Your task to perform on an android device: Search for sushi restaurants on Maps Image 0: 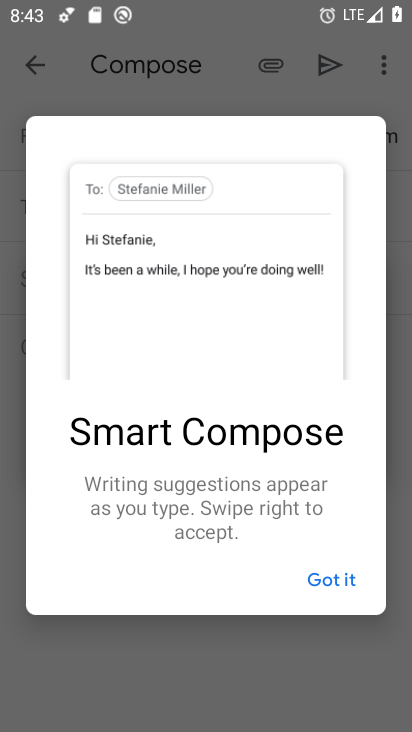
Step 0: press home button
Your task to perform on an android device: Search for sushi restaurants on Maps Image 1: 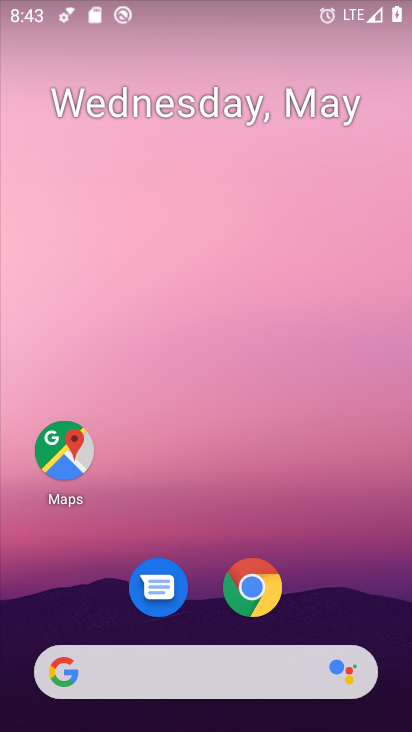
Step 1: click (74, 451)
Your task to perform on an android device: Search for sushi restaurants on Maps Image 2: 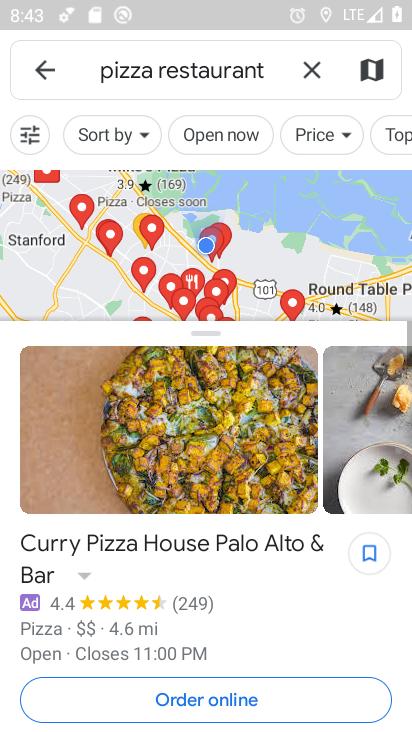
Step 2: click (119, 80)
Your task to perform on an android device: Search for sushi restaurants on Maps Image 3: 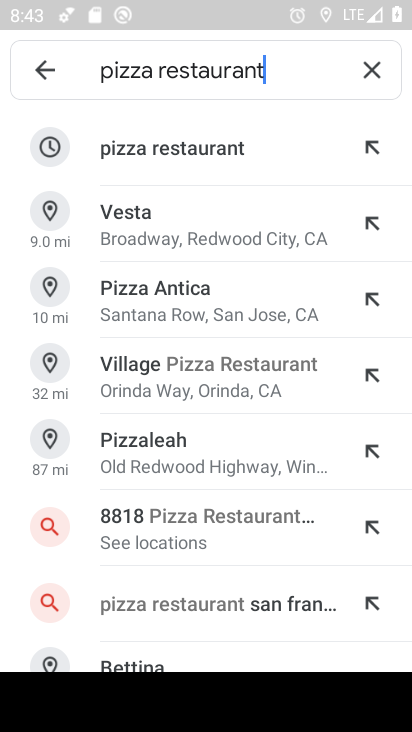
Step 3: click (133, 67)
Your task to perform on an android device: Search for sushi restaurants on Maps Image 4: 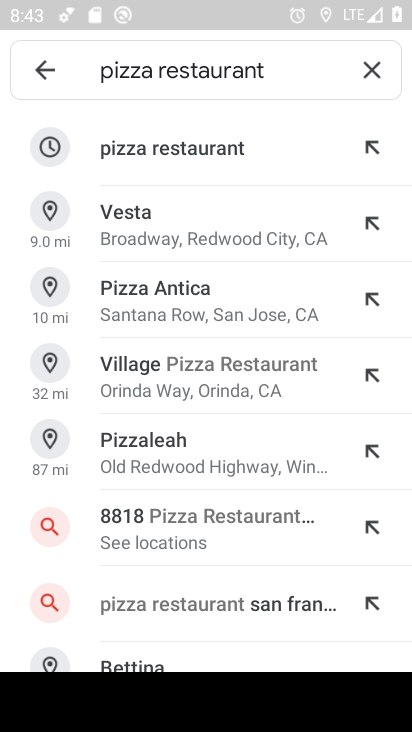
Step 4: click (133, 67)
Your task to perform on an android device: Search for sushi restaurants on Maps Image 5: 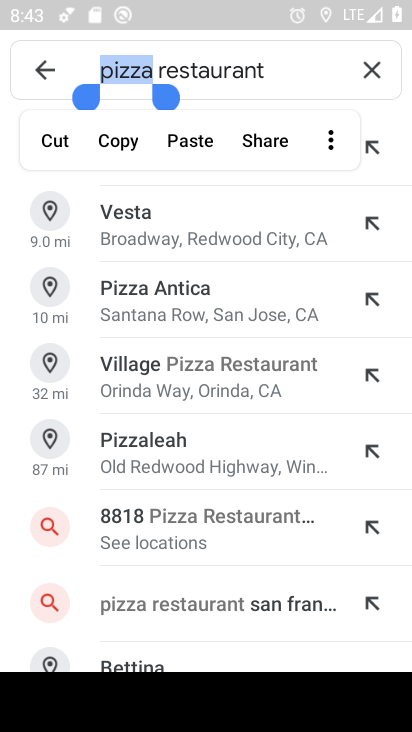
Step 5: type "Sushi"
Your task to perform on an android device: Search for sushi restaurants on Maps Image 6: 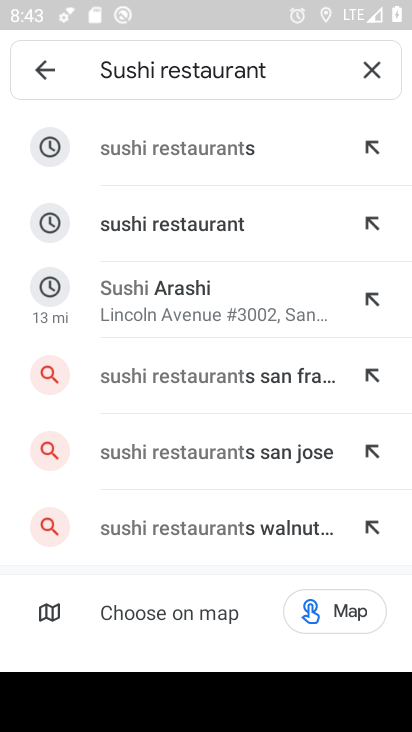
Step 6: click (263, 159)
Your task to perform on an android device: Search for sushi restaurants on Maps Image 7: 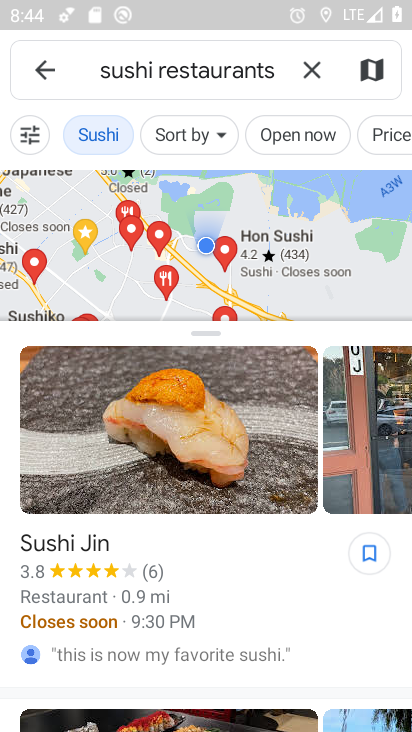
Step 7: task complete